Your task to perform on an android device: Show me the alarms in the clock app Image 0: 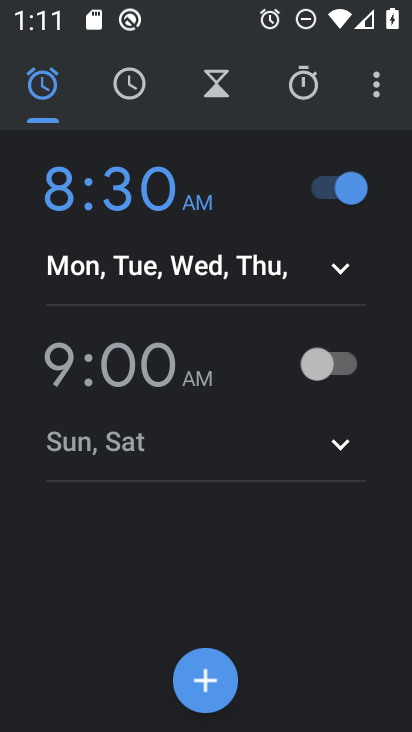
Step 0: task complete